Your task to perform on an android device: Open Wikipedia Image 0: 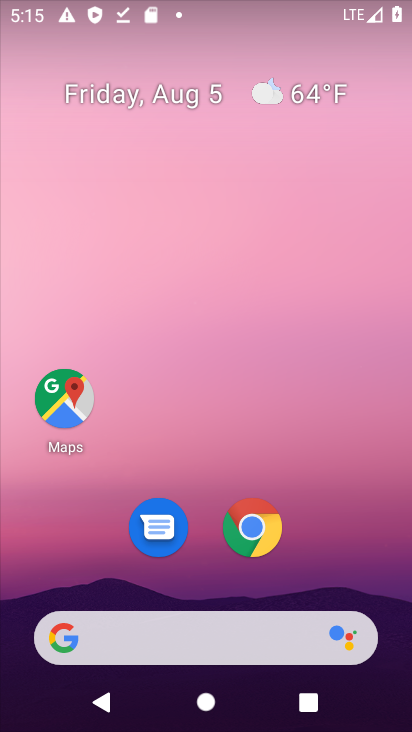
Step 0: drag from (200, 515) to (169, 8)
Your task to perform on an android device: Open Wikipedia Image 1: 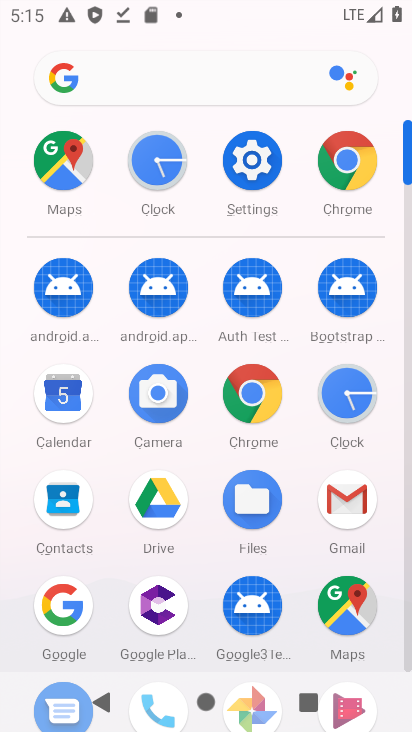
Step 1: click (353, 161)
Your task to perform on an android device: Open Wikipedia Image 2: 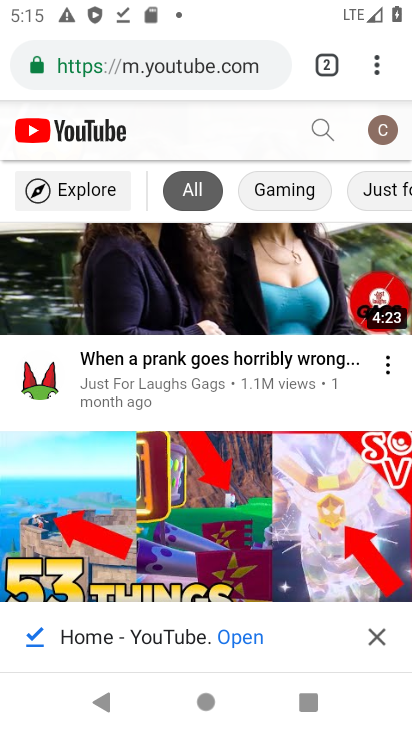
Step 2: click (220, 78)
Your task to perform on an android device: Open Wikipedia Image 3: 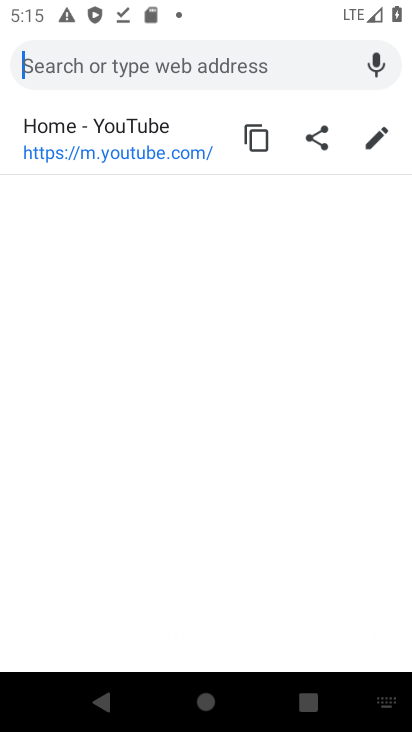
Step 3: type "Wikipedia"
Your task to perform on an android device: Open Wikipedia Image 4: 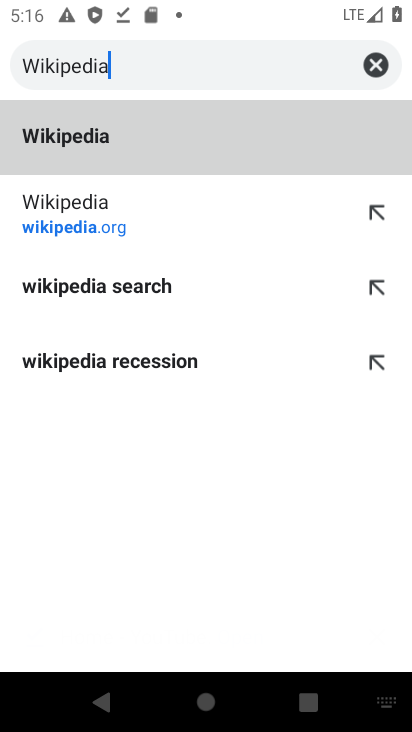
Step 4: click (60, 143)
Your task to perform on an android device: Open Wikipedia Image 5: 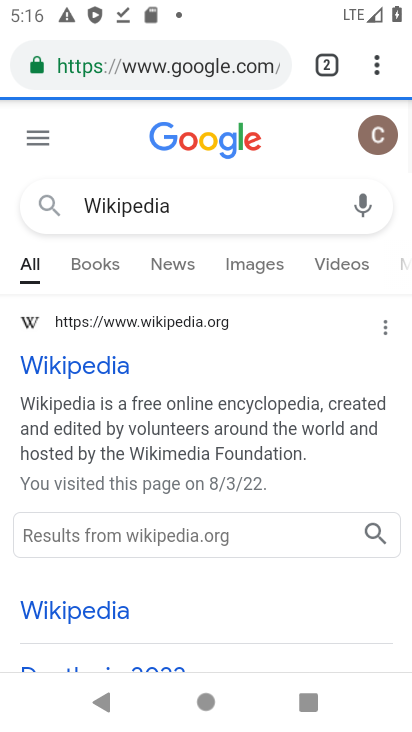
Step 5: drag from (166, 532) to (198, 342)
Your task to perform on an android device: Open Wikipedia Image 6: 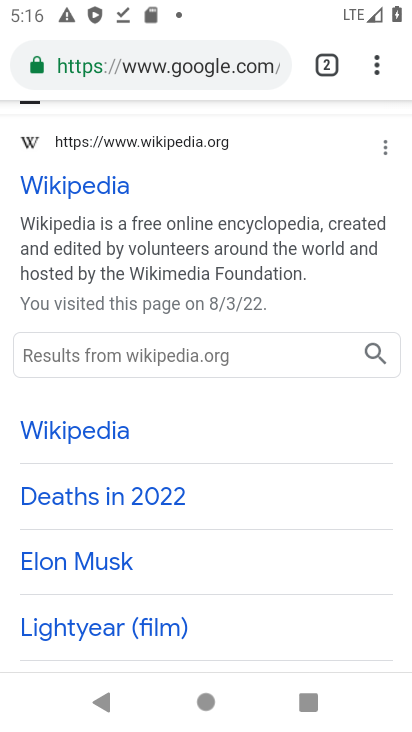
Step 6: click (83, 186)
Your task to perform on an android device: Open Wikipedia Image 7: 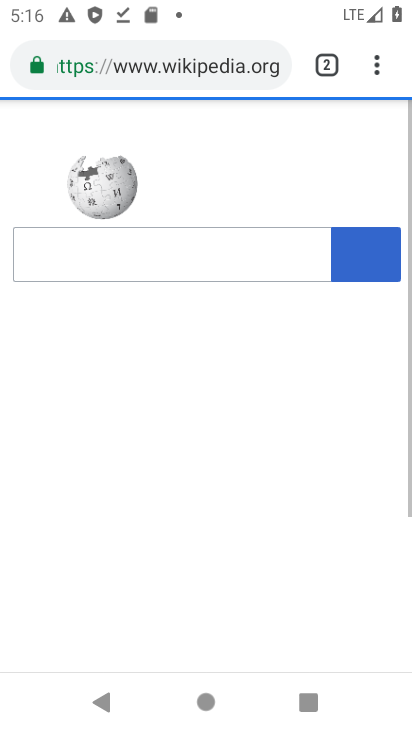
Step 7: task complete